Your task to perform on an android device: Go to eBay Image 0: 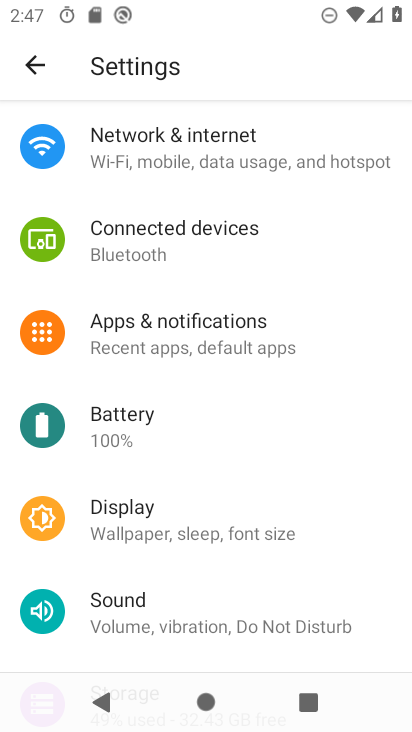
Step 0: press home button
Your task to perform on an android device: Go to eBay Image 1: 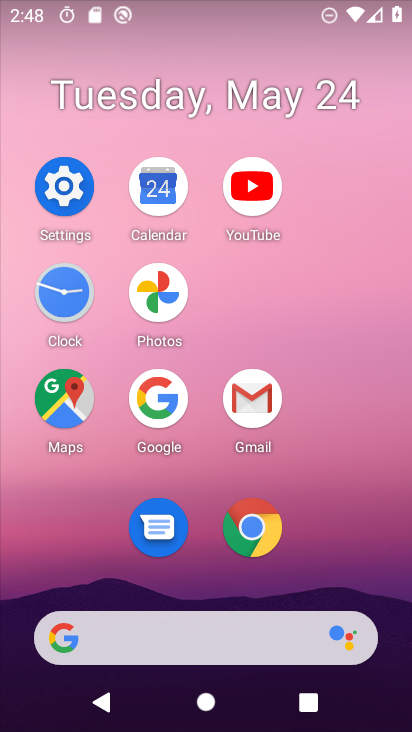
Step 1: click (249, 531)
Your task to perform on an android device: Go to eBay Image 2: 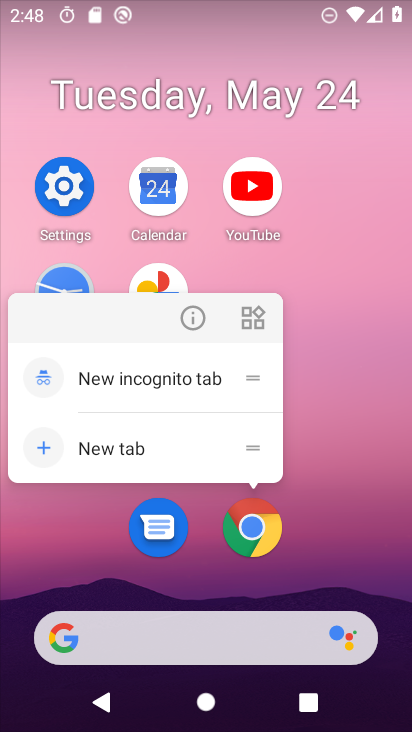
Step 2: click (233, 557)
Your task to perform on an android device: Go to eBay Image 3: 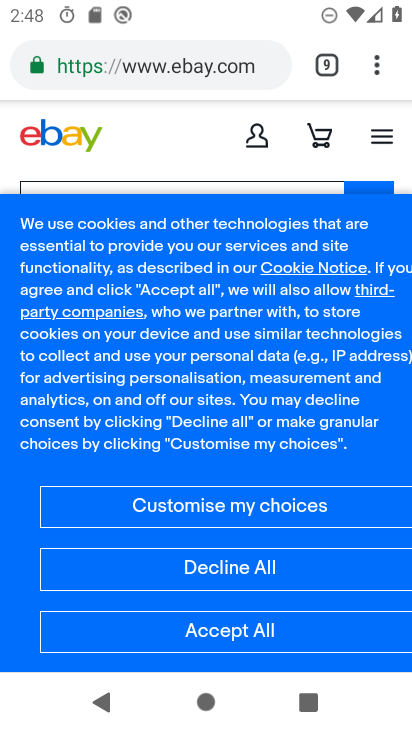
Step 3: task complete